Your task to perform on an android device: toggle notifications settings in the gmail app Image 0: 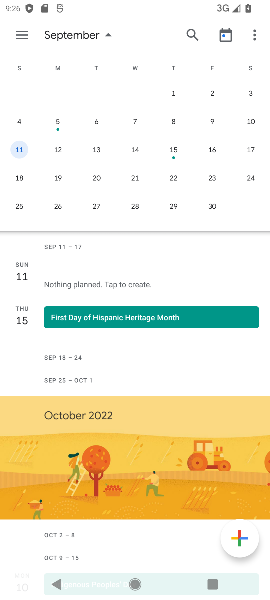
Step 0: press home button
Your task to perform on an android device: toggle notifications settings in the gmail app Image 1: 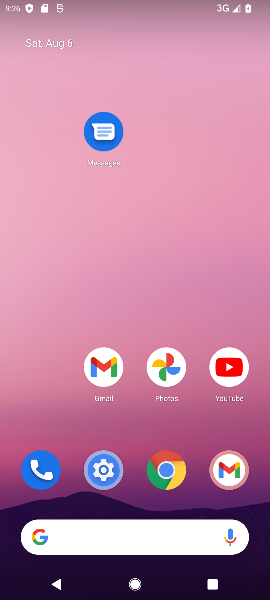
Step 1: drag from (171, 544) to (170, 90)
Your task to perform on an android device: toggle notifications settings in the gmail app Image 2: 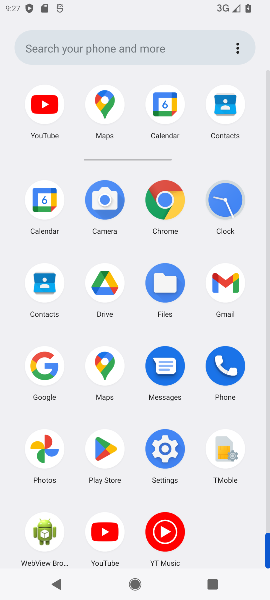
Step 2: click (233, 285)
Your task to perform on an android device: toggle notifications settings in the gmail app Image 3: 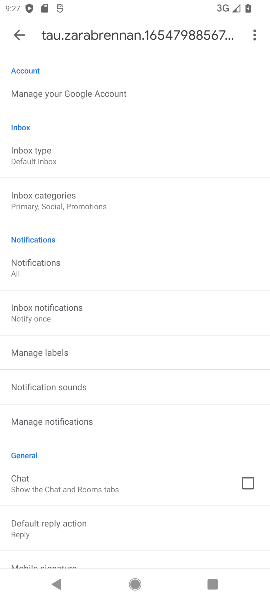
Step 3: click (18, 34)
Your task to perform on an android device: toggle notifications settings in the gmail app Image 4: 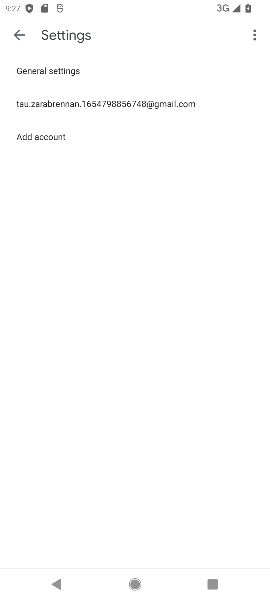
Step 4: click (50, 75)
Your task to perform on an android device: toggle notifications settings in the gmail app Image 5: 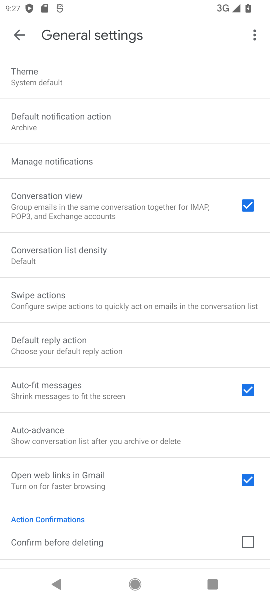
Step 5: click (86, 160)
Your task to perform on an android device: toggle notifications settings in the gmail app Image 6: 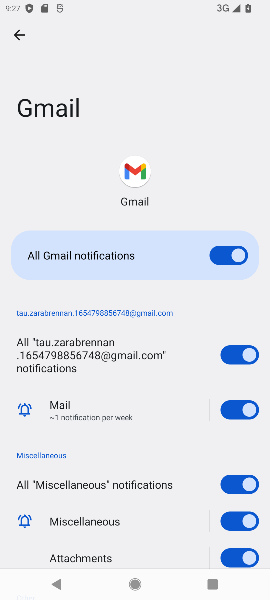
Step 6: drag from (146, 395) to (153, 166)
Your task to perform on an android device: toggle notifications settings in the gmail app Image 7: 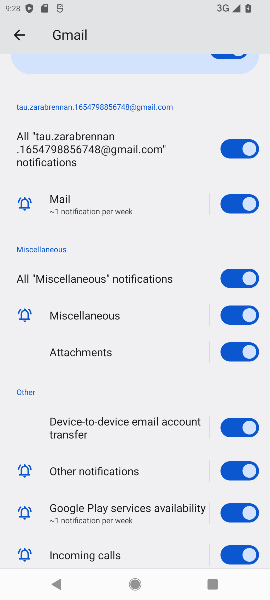
Step 7: drag from (157, 191) to (164, 524)
Your task to perform on an android device: toggle notifications settings in the gmail app Image 8: 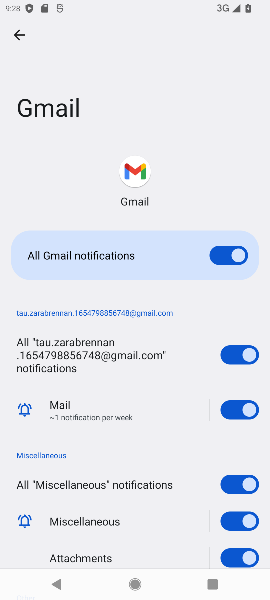
Step 8: click (214, 253)
Your task to perform on an android device: toggle notifications settings in the gmail app Image 9: 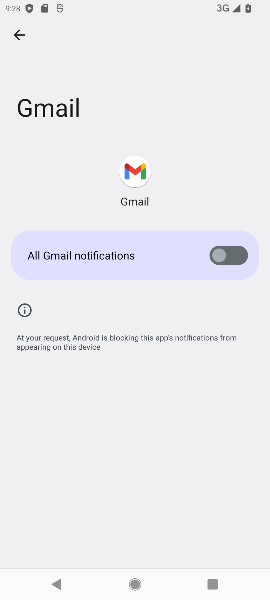
Step 9: task complete